Your task to perform on an android device: Go to Maps Image 0: 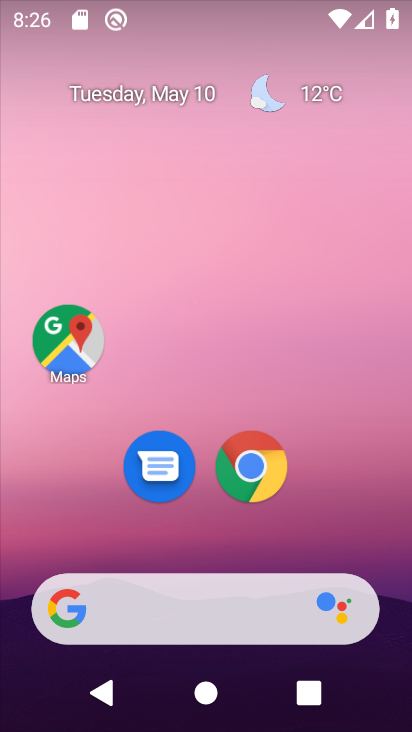
Step 0: click (91, 348)
Your task to perform on an android device: Go to Maps Image 1: 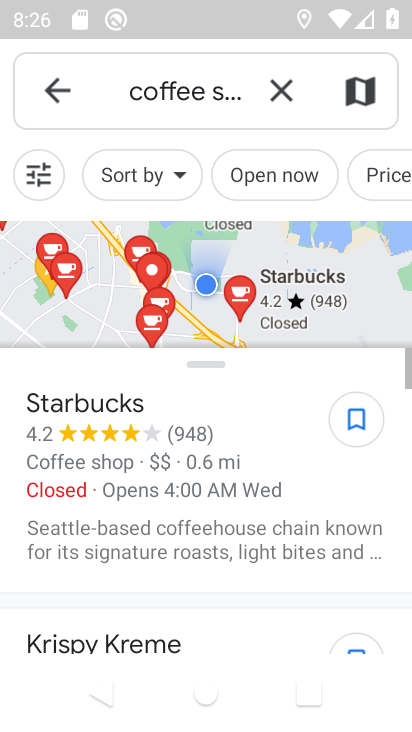
Step 1: click (63, 104)
Your task to perform on an android device: Go to Maps Image 2: 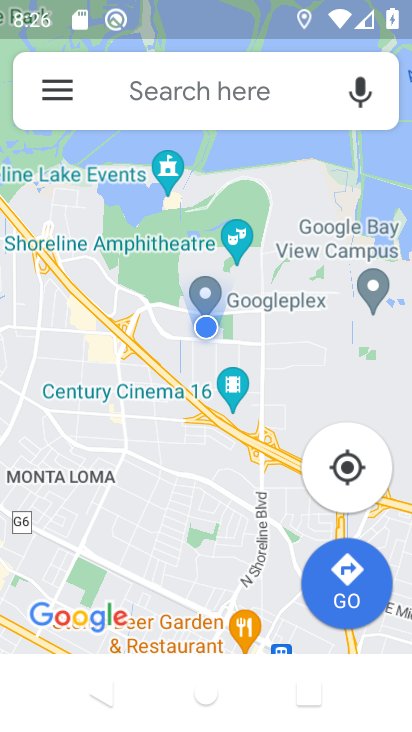
Step 2: task complete